Your task to perform on an android device: Go to ESPN.com Image 0: 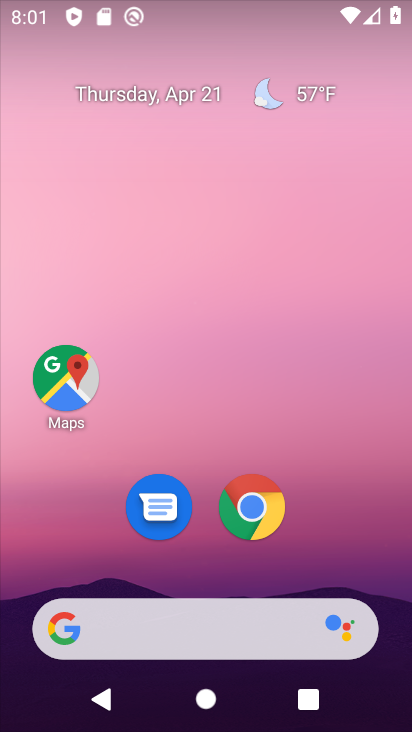
Step 0: click (262, 505)
Your task to perform on an android device: Go to ESPN.com Image 1: 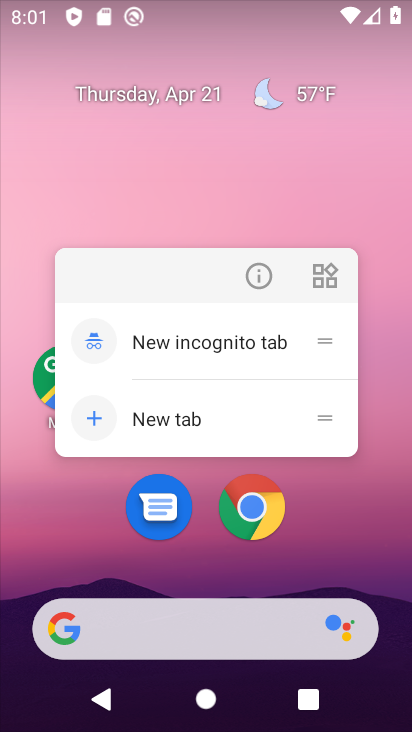
Step 1: click (268, 503)
Your task to perform on an android device: Go to ESPN.com Image 2: 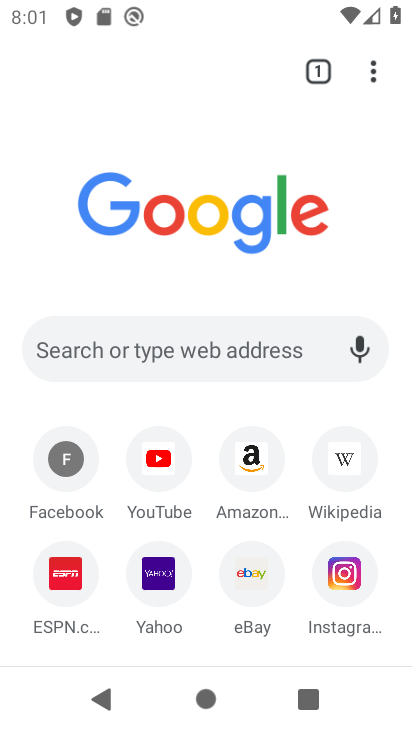
Step 2: click (62, 593)
Your task to perform on an android device: Go to ESPN.com Image 3: 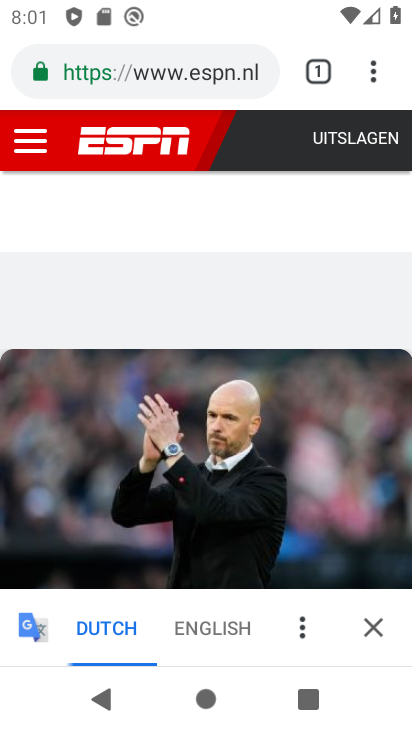
Step 3: task complete